Your task to perform on an android device: Do I have any events today? Image 0: 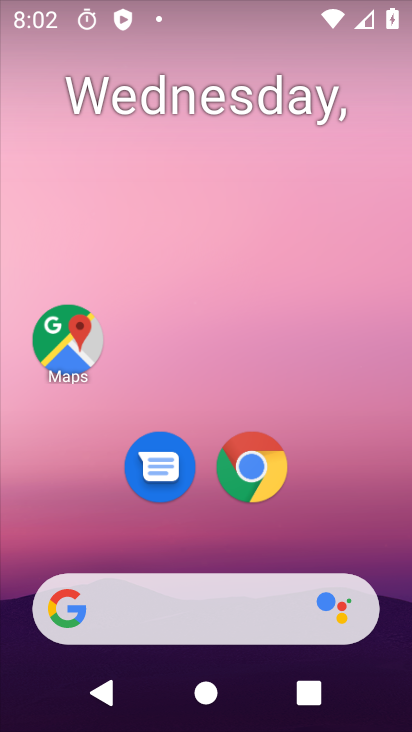
Step 0: drag from (2, 244) to (309, 232)
Your task to perform on an android device: Do I have any events today? Image 1: 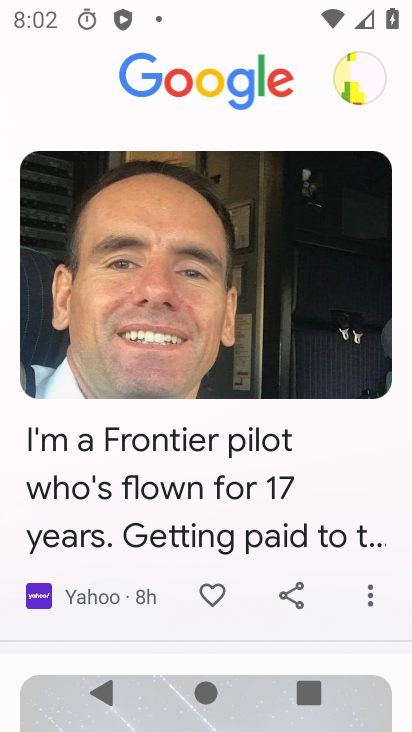
Step 1: press home button
Your task to perform on an android device: Do I have any events today? Image 2: 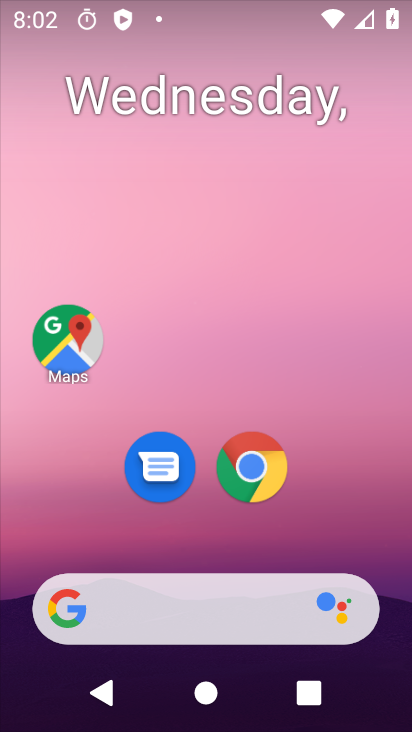
Step 2: drag from (326, 173) to (312, 45)
Your task to perform on an android device: Do I have any events today? Image 3: 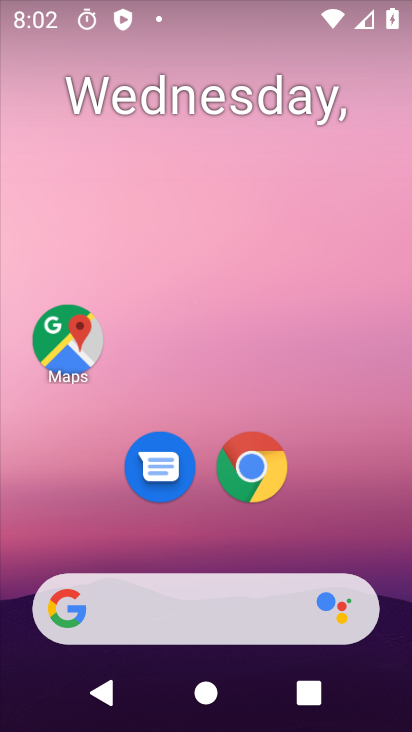
Step 3: drag from (359, 283) to (355, 194)
Your task to perform on an android device: Do I have any events today? Image 4: 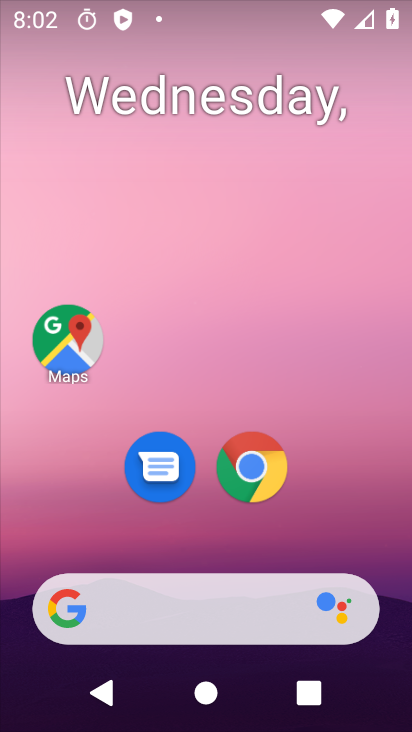
Step 4: click (346, 125)
Your task to perform on an android device: Do I have any events today? Image 5: 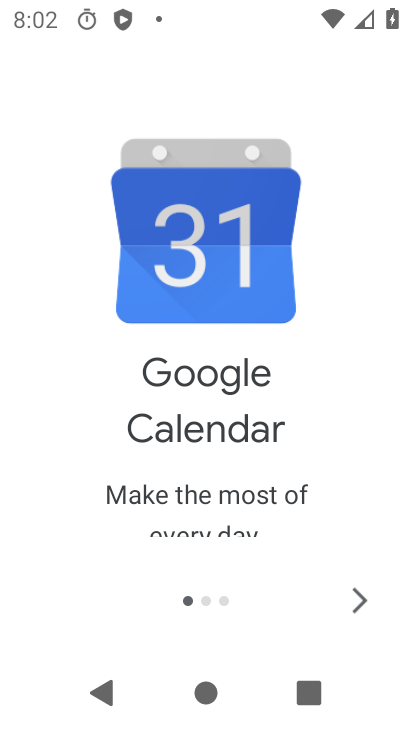
Step 5: click (357, 599)
Your task to perform on an android device: Do I have any events today? Image 6: 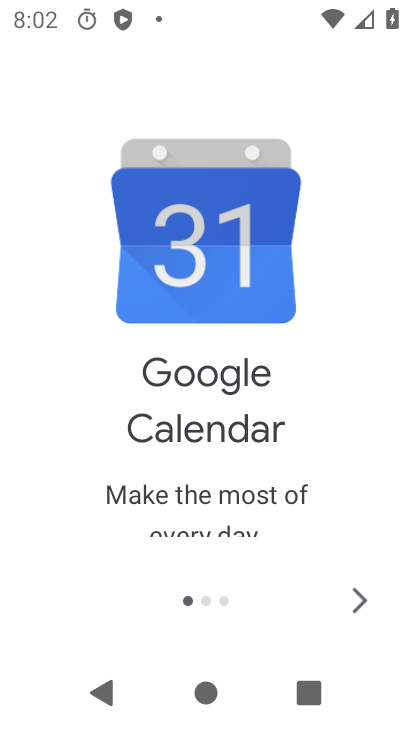
Step 6: click (357, 599)
Your task to perform on an android device: Do I have any events today? Image 7: 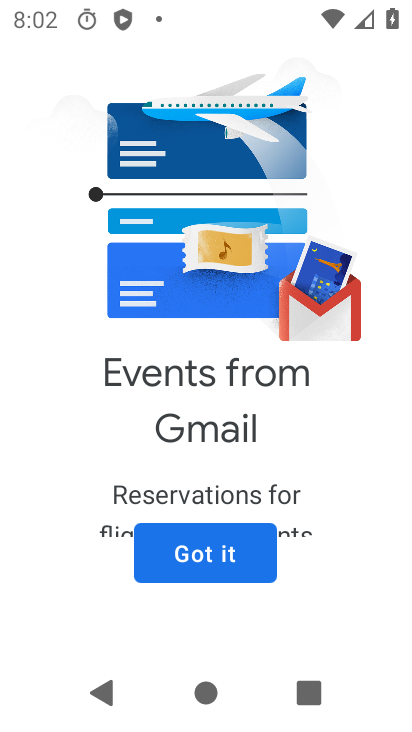
Step 7: click (238, 562)
Your task to perform on an android device: Do I have any events today? Image 8: 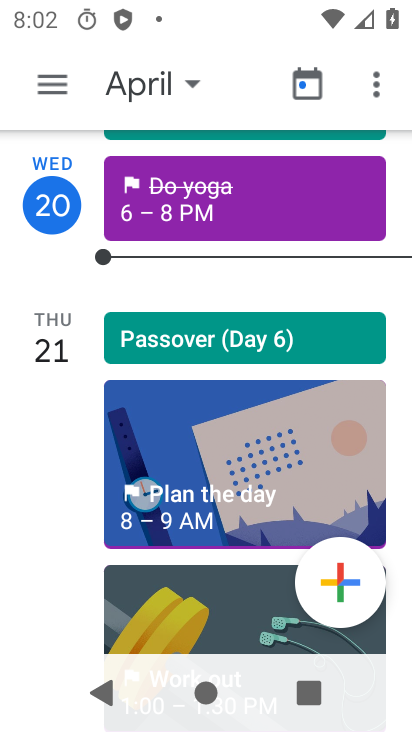
Step 8: click (184, 74)
Your task to perform on an android device: Do I have any events today? Image 9: 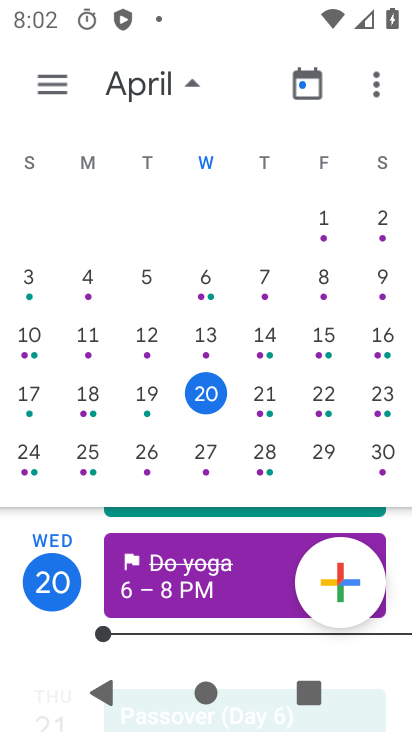
Step 9: click (206, 386)
Your task to perform on an android device: Do I have any events today? Image 10: 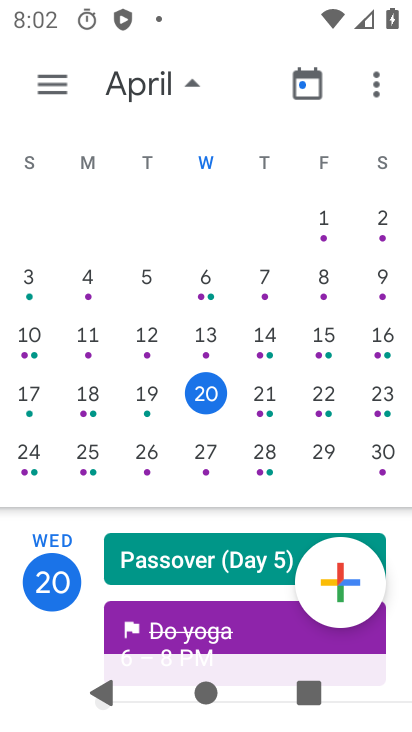
Step 10: click (206, 386)
Your task to perform on an android device: Do I have any events today? Image 11: 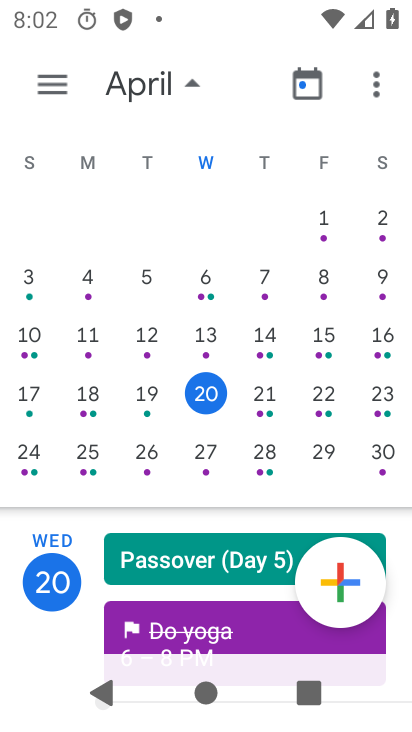
Step 11: task complete